Your task to perform on an android device: Open Android settings Image 0: 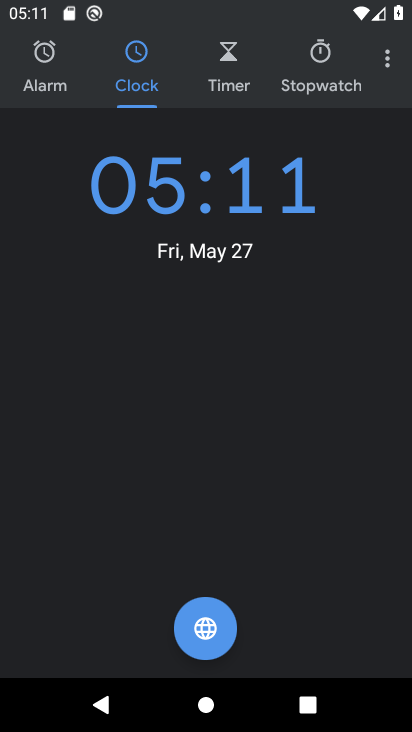
Step 0: press back button
Your task to perform on an android device: Open Android settings Image 1: 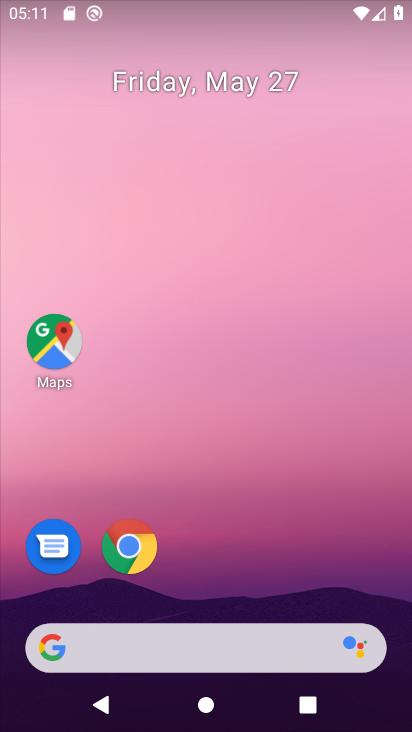
Step 1: drag from (260, 559) to (253, 38)
Your task to perform on an android device: Open Android settings Image 2: 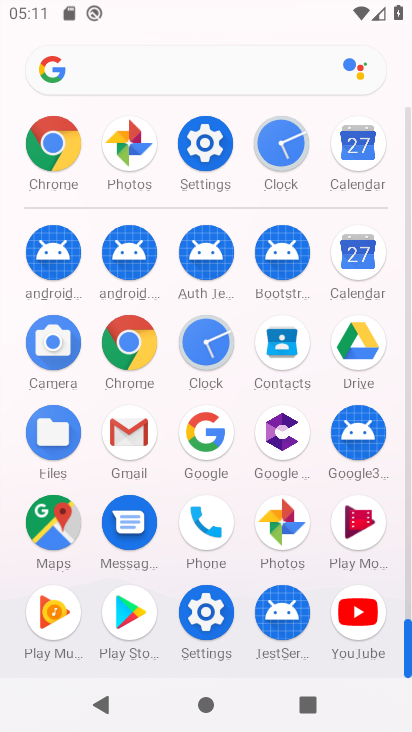
Step 2: click (204, 610)
Your task to perform on an android device: Open Android settings Image 3: 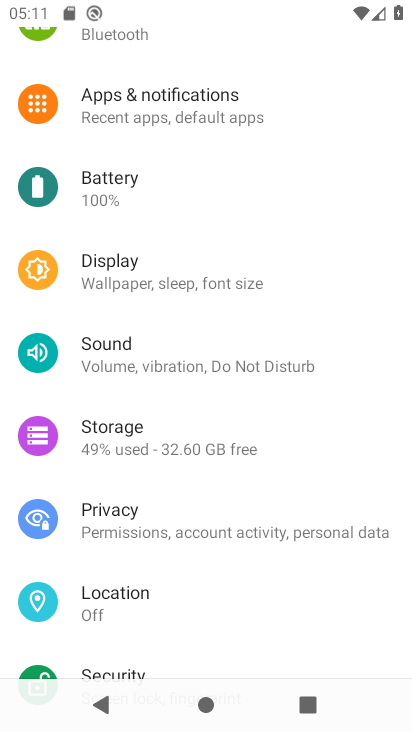
Step 3: task complete